Your task to perform on an android device: Open Google Image 0: 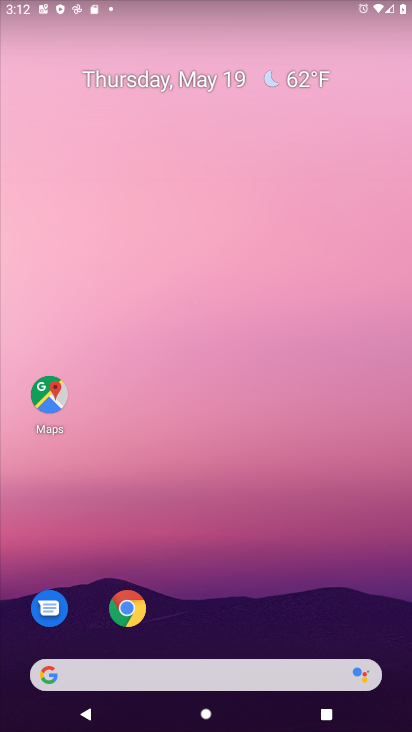
Step 0: click (144, 603)
Your task to perform on an android device: Open Google Image 1: 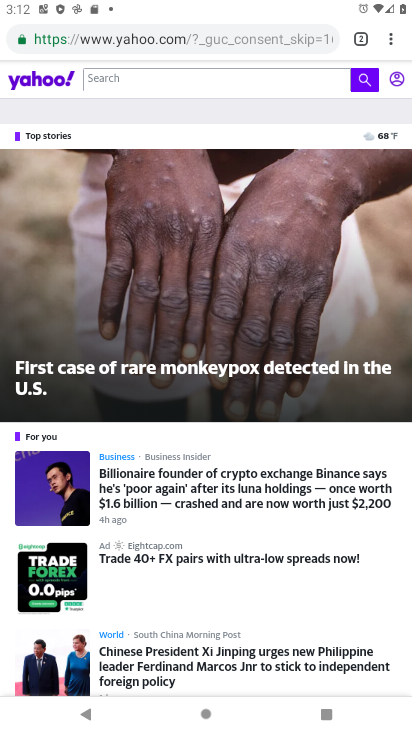
Step 1: click (282, 31)
Your task to perform on an android device: Open Google Image 2: 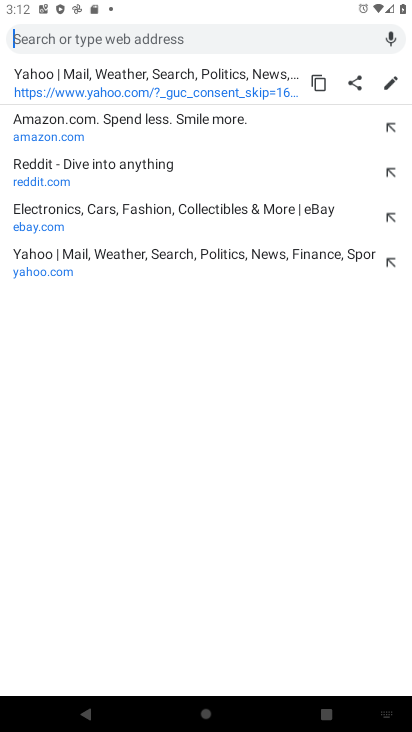
Step 2: type "google.com"
Your task to perform on an android device: Open Google Image 3: 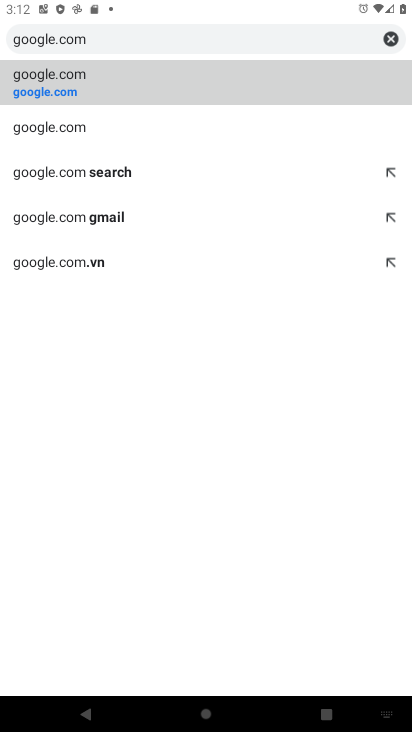
Step 3: click (190, 115)
Your task to perform on an android device: Open Google Image 4: 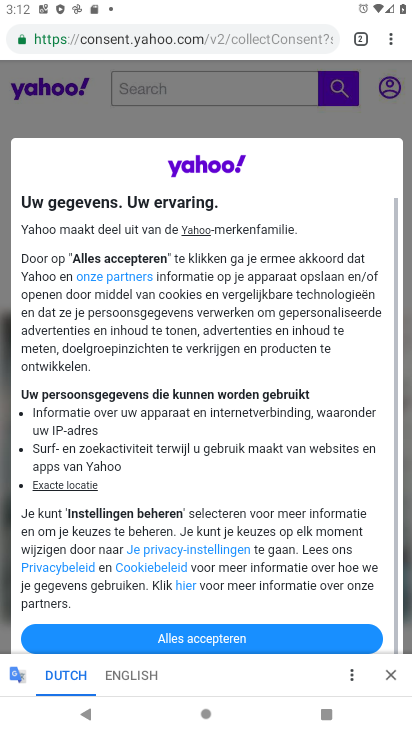
Step 4: task complete